Your task to perform on an android device: set the timer Image 0: 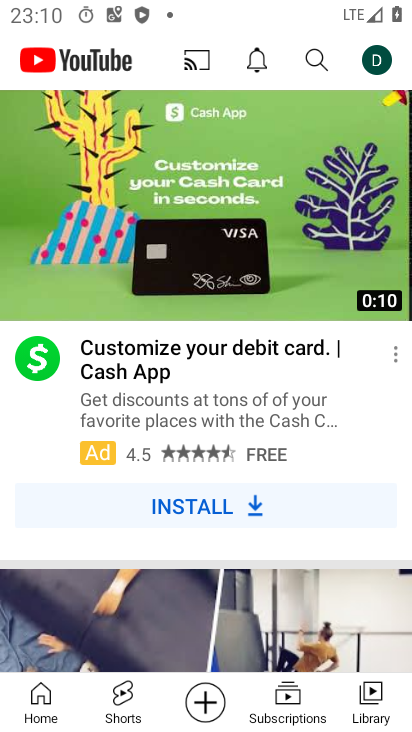
Step 0: press home button
Your task to perform on an android device: set the timer Image 1: 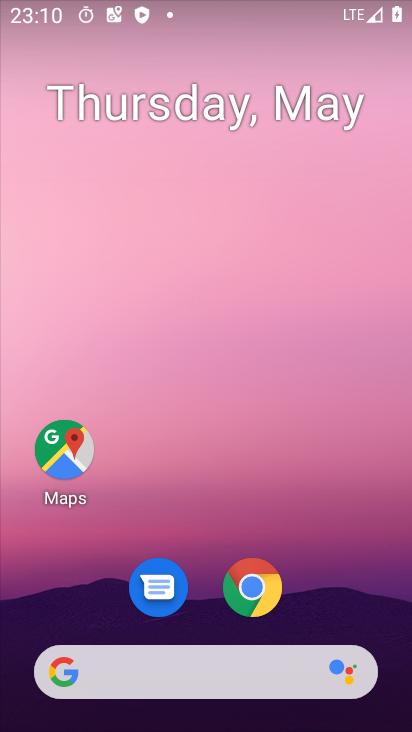
Step 1: drag from (333, 609) to (294, 2)
Your task to perform on an android device: set the timer Image 2: 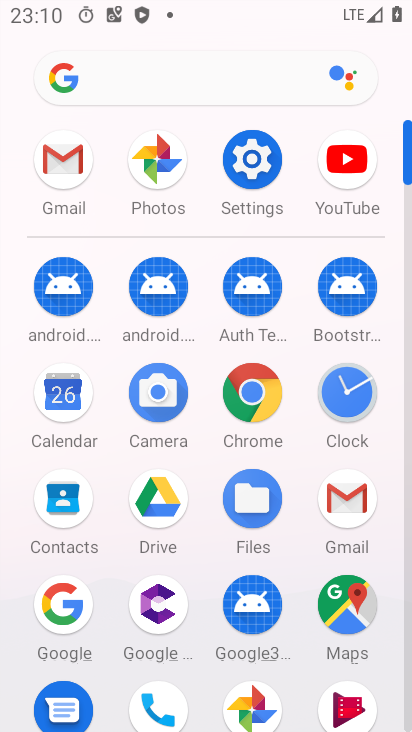
Step 2: click (346, 397)
Your task to perform on an android device: set the timer Image 3: 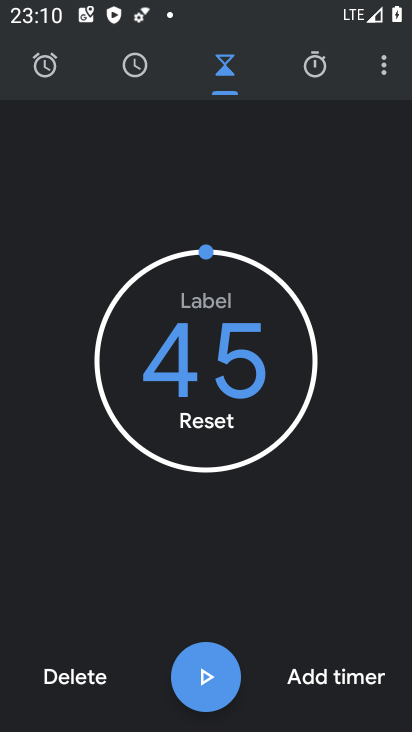
Step 3: click (294, 681)
Your task to perform on an android device: set the timer Image 4: 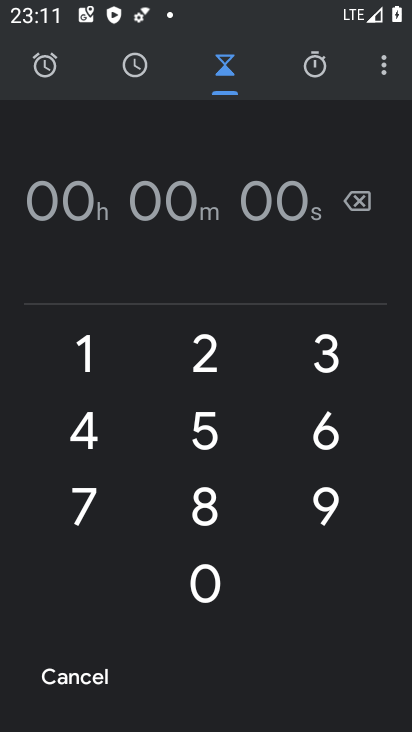
Step 4: click (210, 512)
Your task to perform on an android device: set the timer Image 5: 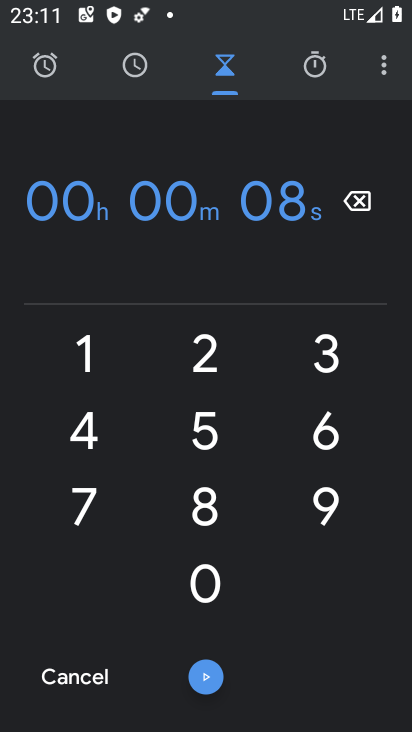
Step 5: click (204, 595)
Your task to perform on an android device: set the timer Image 6: 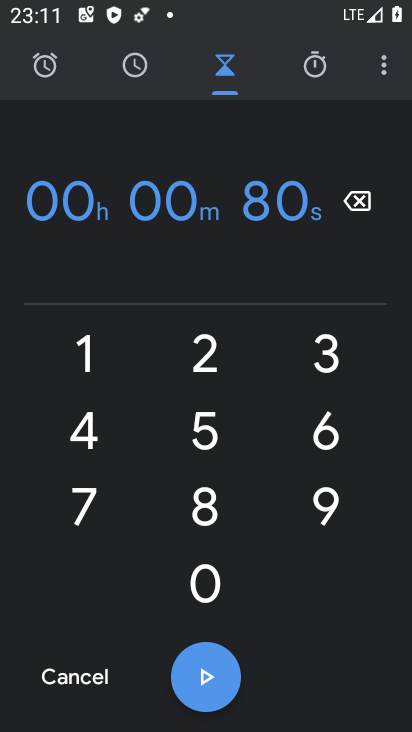
Step 6: click (196, 686)
Your task to perform on an android device: set the timer Image 7: 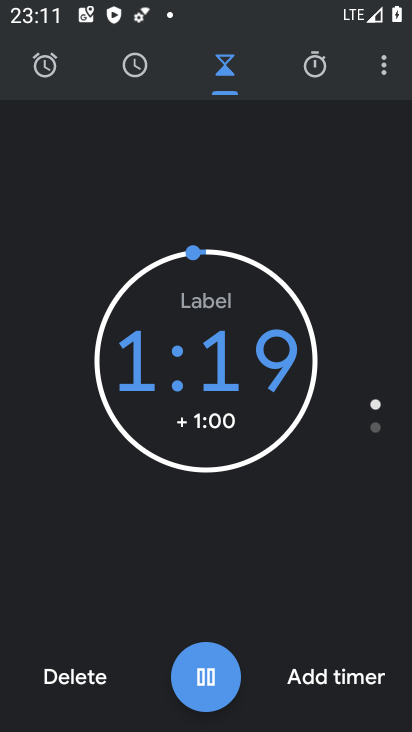
Step 7: task complete